Your task to perform on an android device: Go to privacy settings Image 0: 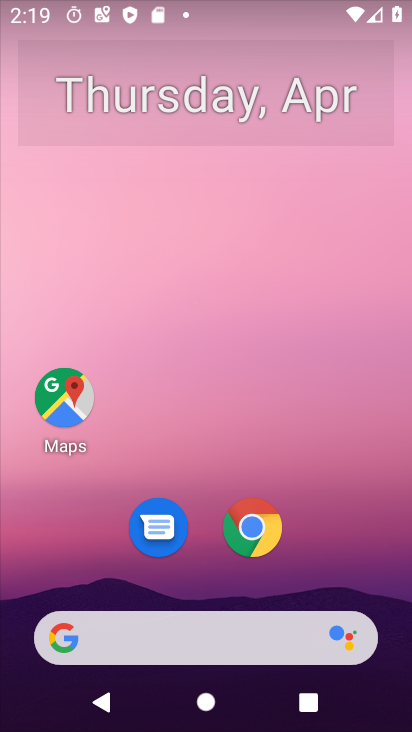
Step 0: drag from (331, 551) to (395, 136)
Your task to perform on an android device: Go to privacy settings Image 1: 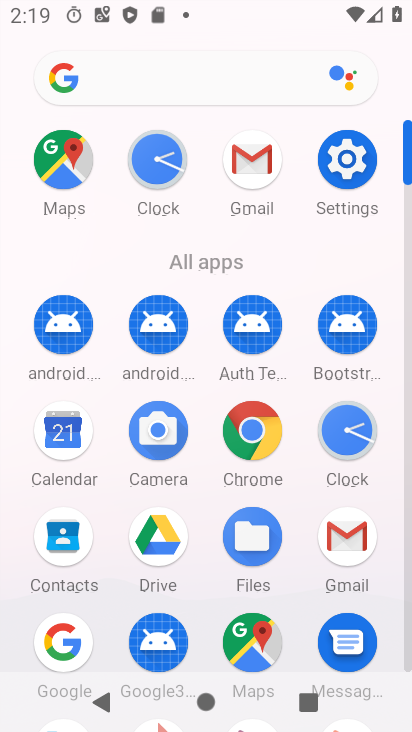
Step 1: click (353, 169)
Your task to perform on an android device: Go to privacy settings Image 2: 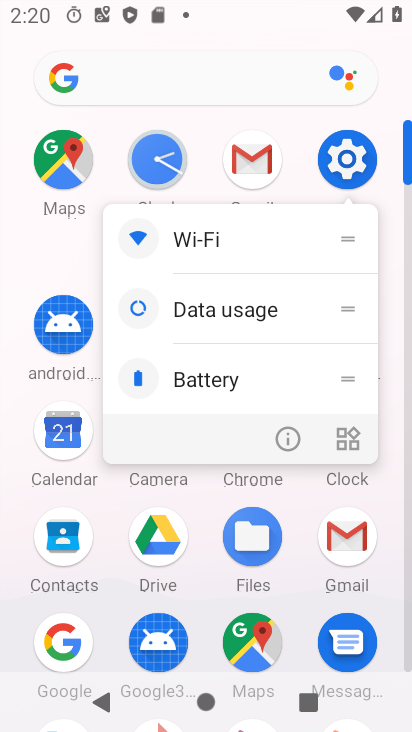
Step 2: click (356, 162)
Your task to perform on an android device: Go to privacy settings Image 3: 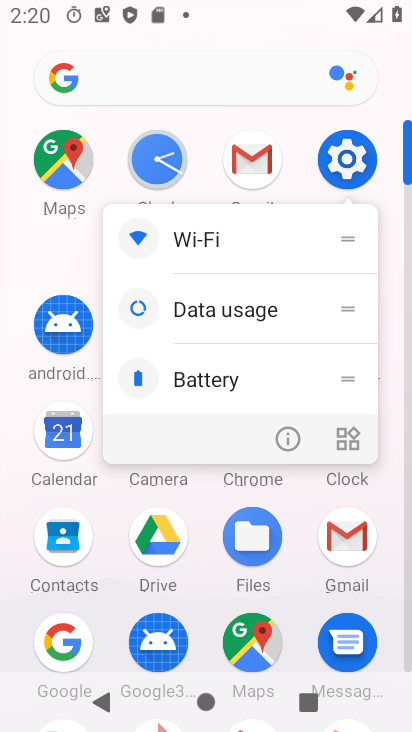
Step 3: click (349, 159)
Your task to perform on an android device: Go to privacy settings Image 4: 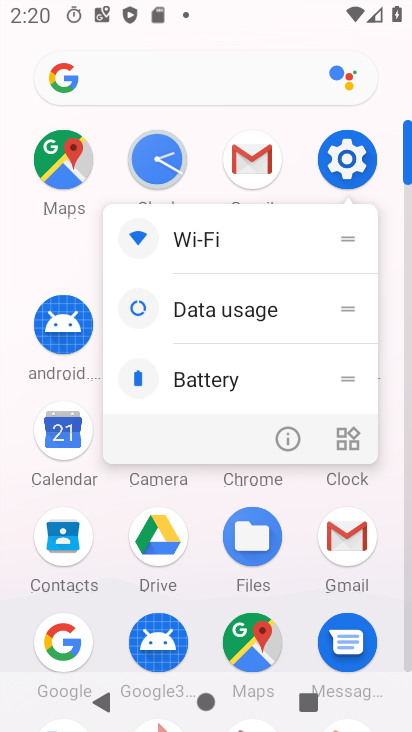
Step 4: click (385, 198)
Your task to perform on an android device: Go to privacy settings Image 5: 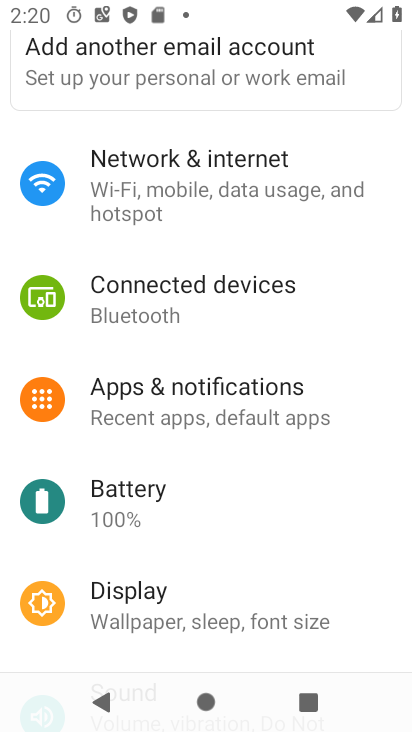
Step 5: drag from (256, 255) to (280, 534)
Your task to perform on an android device: Go to privacy settings Image 6: 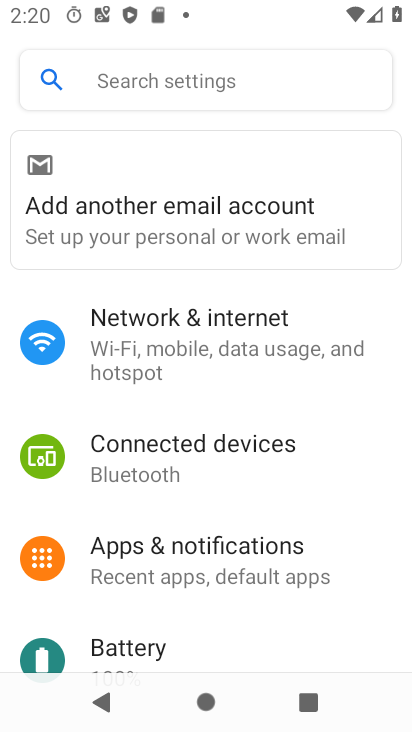
Step 6: drag from (280, 531) to (276, 134)
Your task to perform on an android device: Go to privacy settings Image 7: 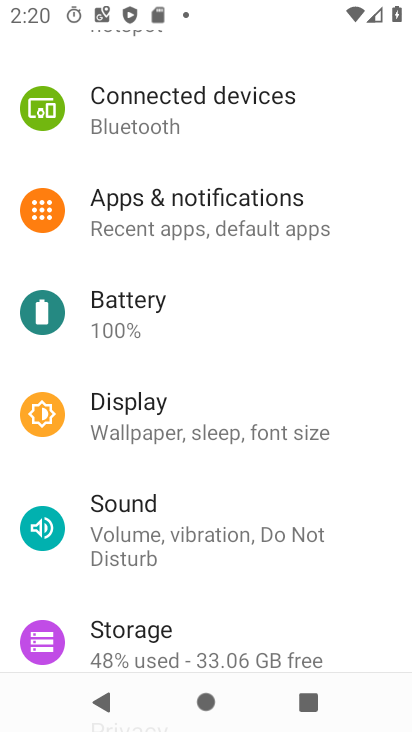
Step 7: drag from (245, 489) to (259, 193)
Your task to perform on an android device: Go to privacy settings Image 8: 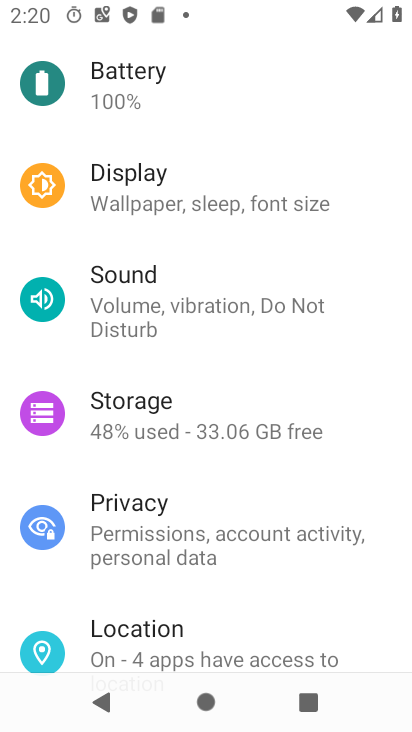
Step 8: click (168, 543)
Your task to perform on an android device: Go to privacy settings Image 9: 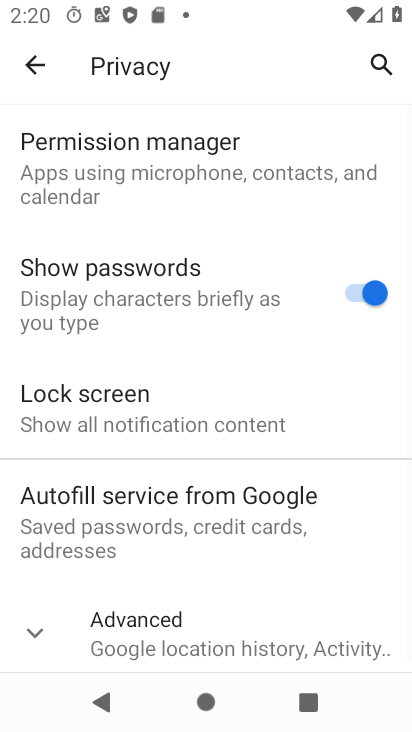
Step 9: drag from (278, 587) to (298, 125)
Your task to perform on an android device: Go to privacy settings Image 10: 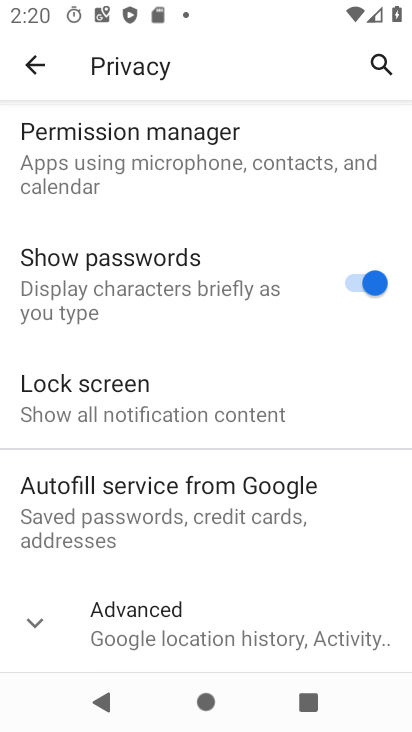
Step 10: click (258, 397)
Your task to perform on an android device: Go to privacy settings Image 11: 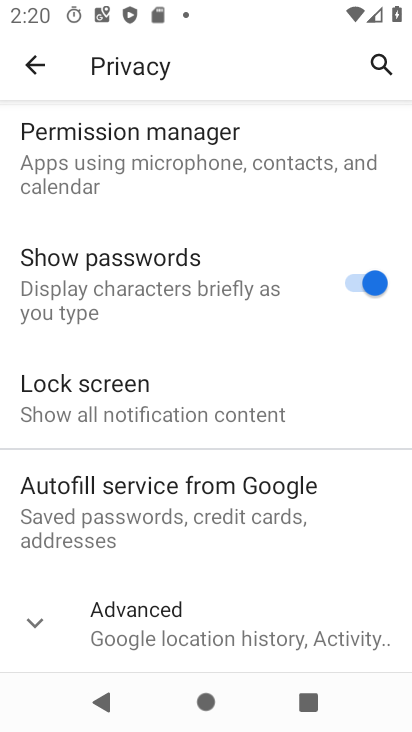
Step 11: click (208, 641)
Your task to perform on an android device: Go to privacy settings Image 12: 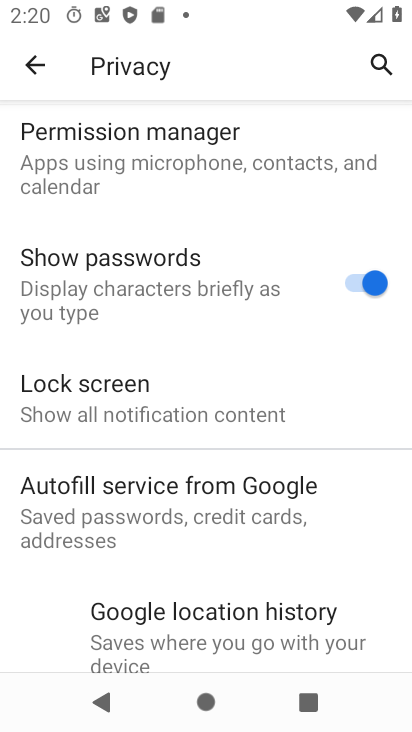
Step 12: task complete